Your task to perform on an android device: Go to display settings Image 0: 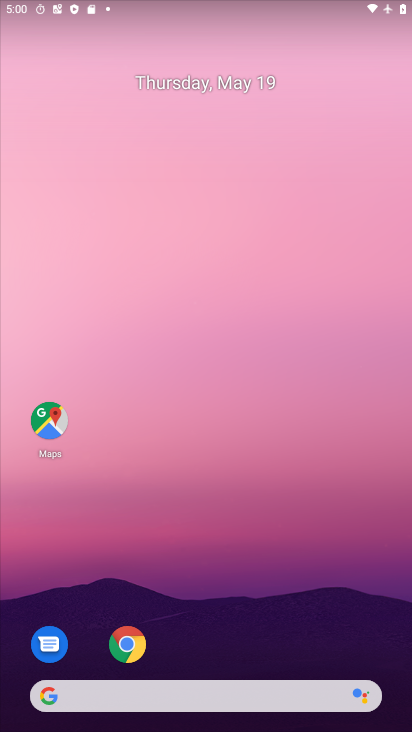
Step 0: drag from (191, 675) to (201, 242)
Your task to perform on an android device: Go to display settings Image 1: 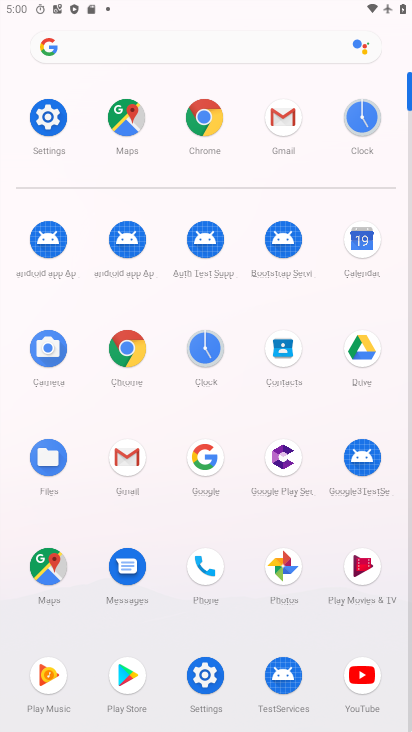
Step 1: click (43, 122)
Your task to perform on an android device: Go to display settings Image 2: 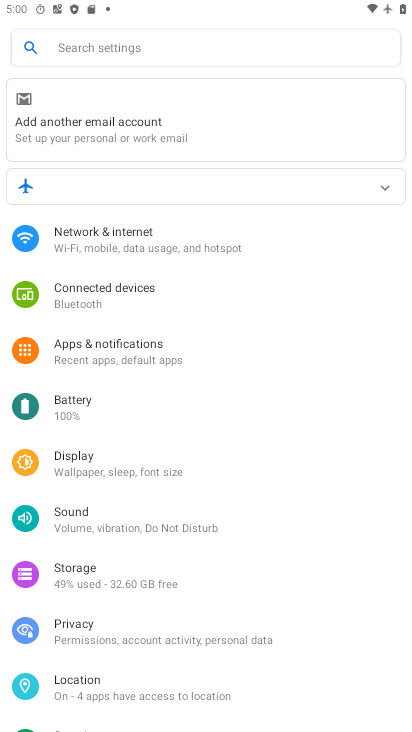
Step 2: click (98, 465)
Your task to perform on an android device: Go to display settings Image 3: 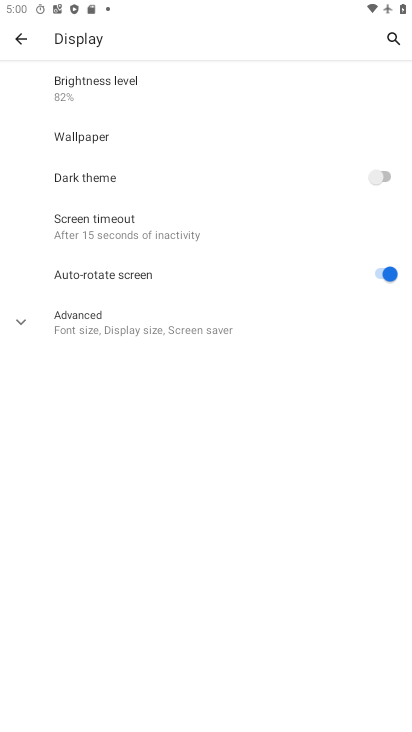
Step 3: click (117, 323)
Your task to perform on an android device: Go to display settings Image 4: 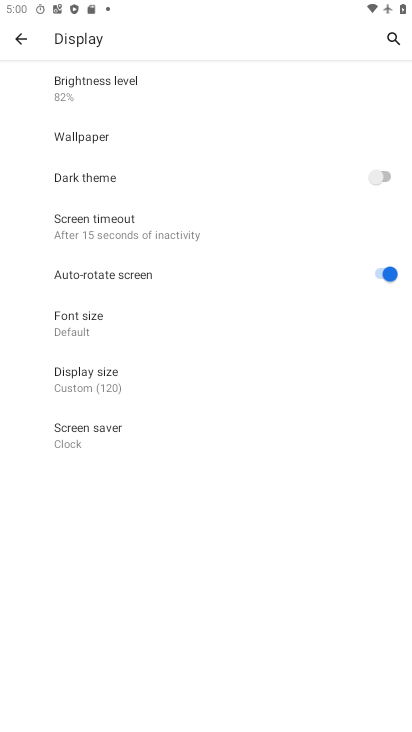
Step 4: task complete